Your task to perform on an android device: turn on translation in the chrome app Image 0: 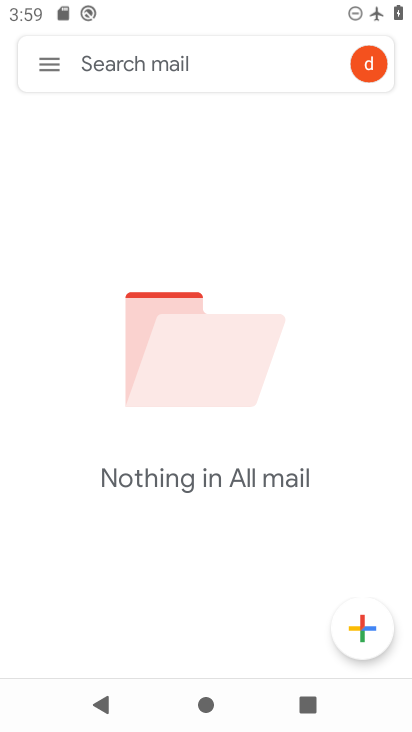
Step 0: press home button
Your task to perform on an android device: turn on translation in the chrome app Image 1: 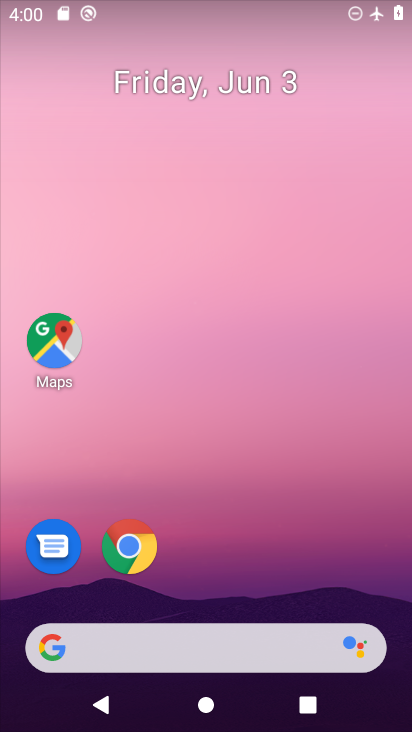
Step 1: click (129, 549)
Your task to perform on an android device: turn on translation in the chrome app Image 2: 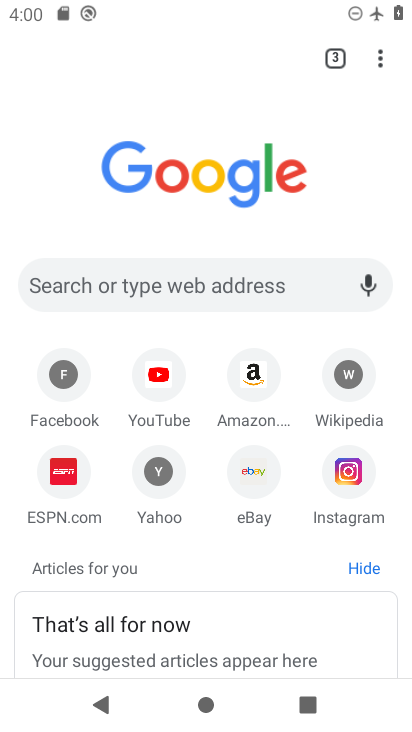
Step 2: click (375, 55)
Your task to perform on an android device: turn on translation in the chrome app Image 3: 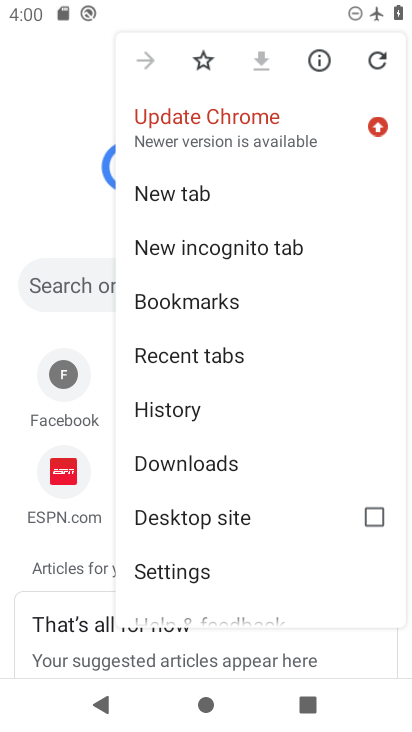
Step 3: click (244, 579)
Your task to perform on an android device: turn on translation in the chrome app Image 4: 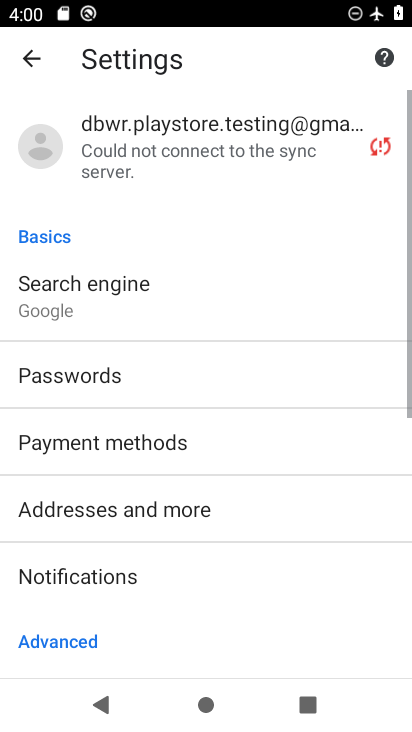
Step 4: drag from (244, 525) to (290, 74)
Your task to perform on an android device: turn on translation in the chrome app Image 5: 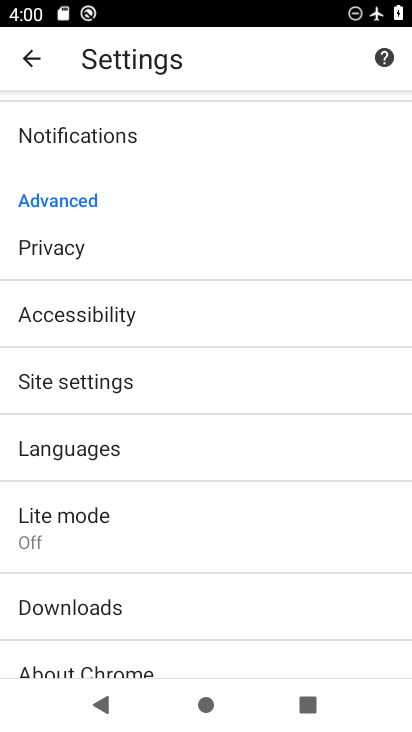
Step 5: click (268, 445)
Your task to perform on an android device: turn on translation in the chrome app Image 6: 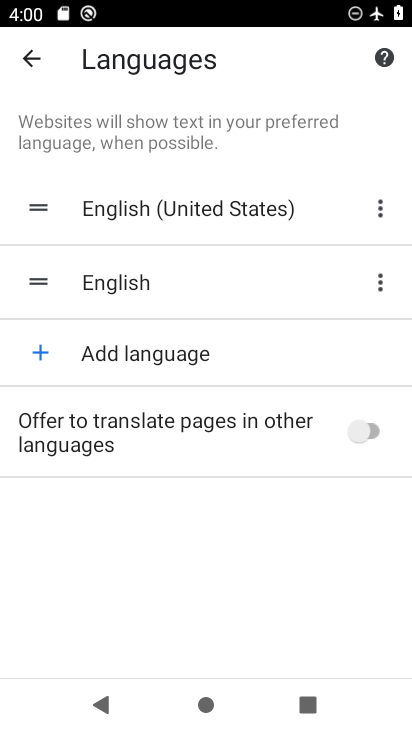
Step 6: click (359, 418)
Your task to perform on an android device: turn on translation in the chrome app Image 7: 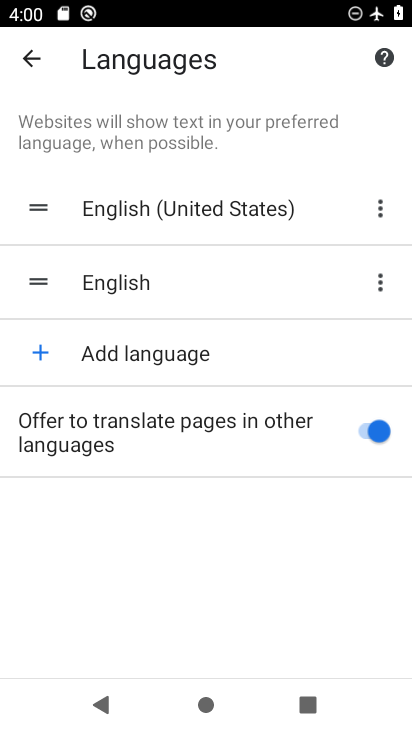
Step 7: task complete